Your task to perform on an android device: toggle wifi Image 0: 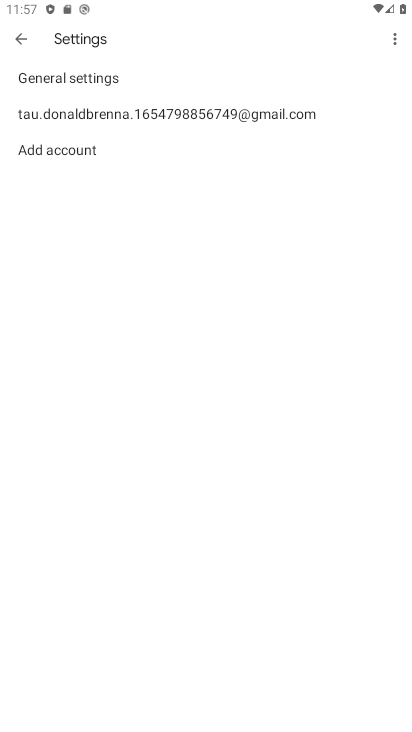
Step 0: press home button
Your task to perform on an android device: toggle wifi Image 1: 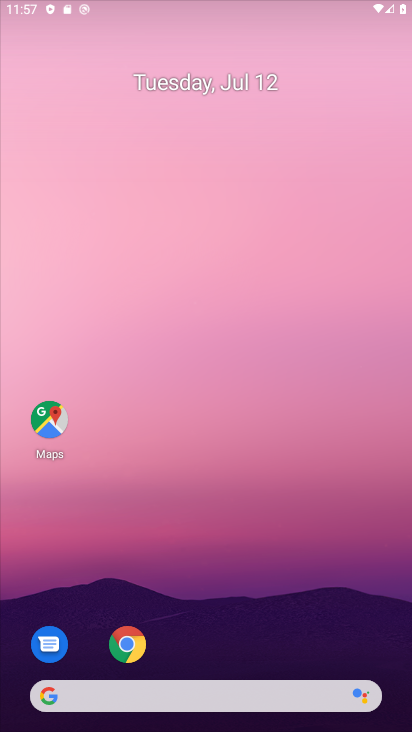
Step 1: drag from (219, 656) to (244, 125)
Your task to perform on an android device: toggle wifi Image 2: 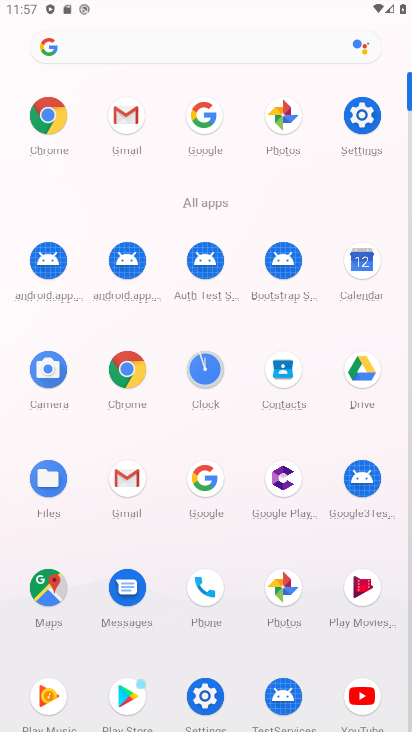
Step 2: click (363, 113)
Your task to perform on an android device: toggle wifi Image 3: 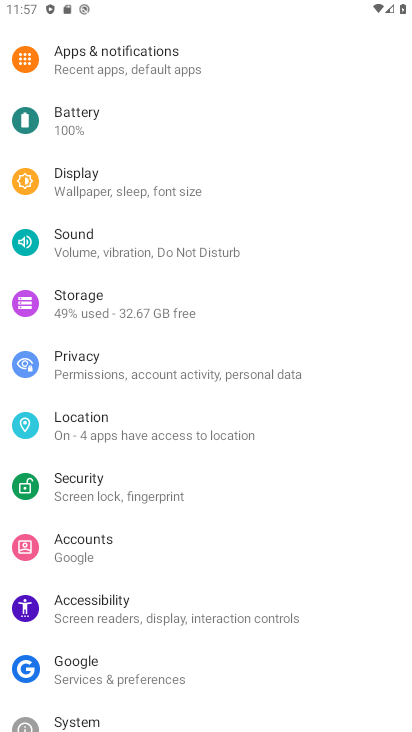
Step 3: drag from (179, 85) to (208, 546)
Your task to perform on an android device: toggle wifi Image 4: 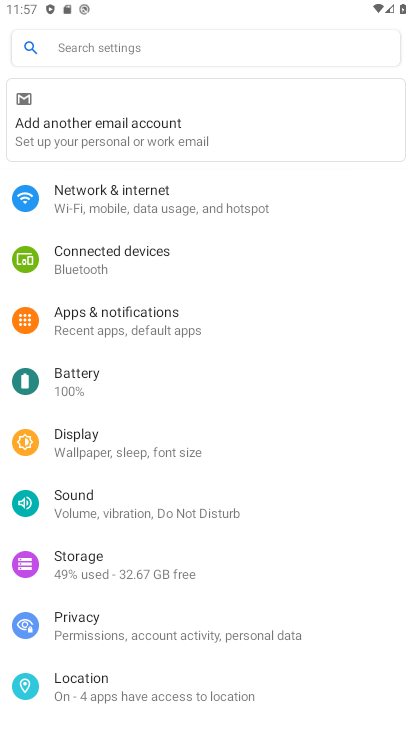
Step 4: click (136, 199)
Your task to perform on an android device: toggle wifi Image 5: 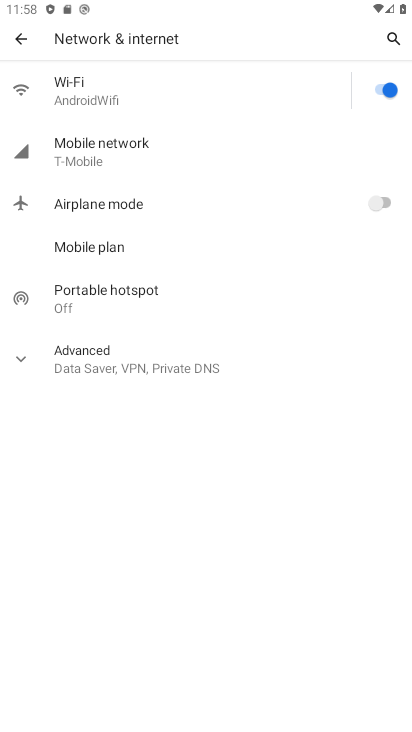
Step 5: click (386, 84)
Your task to perform on an android device: toggle wifi Image 6: 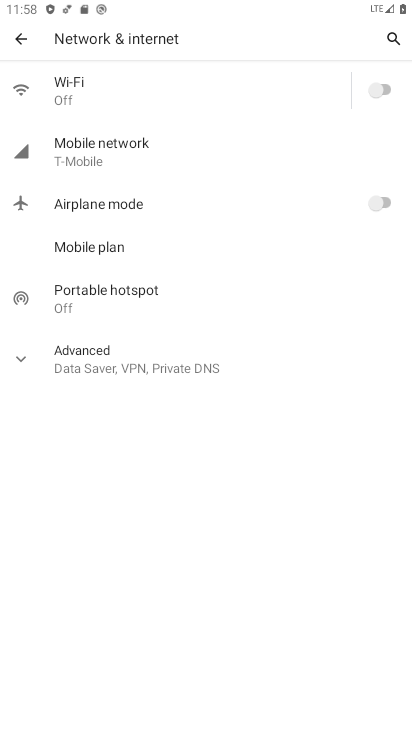
Step 6: task complete